Your task to perform on an android device: turn off notifications in google photos Image 0: 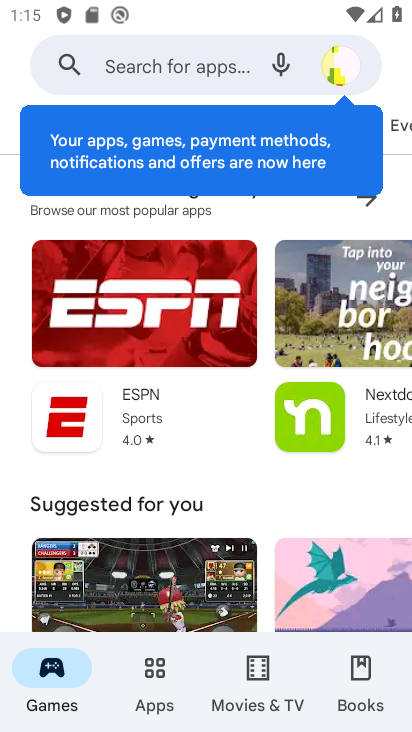
Step 0: press home button
Your task to perform on an android device: turn off notifications in google photos Image 1: 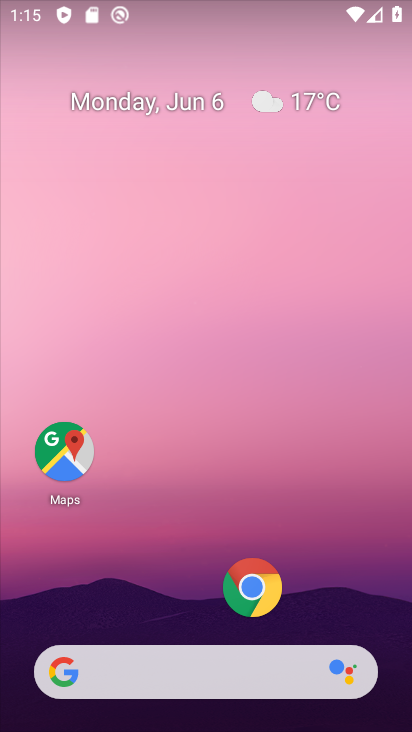
Step 1: drag from (204, 640) to (306, 33)
Your task to perform on an android device: turn off notifications in google photos Image 2: 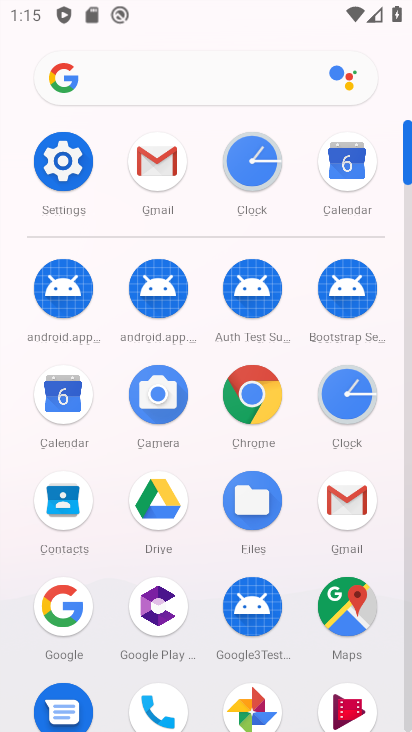
Step 2: drag from (296, 551) to (313, 171)
Your task to perform on an android device: turn off notifications in google photos Image 3: 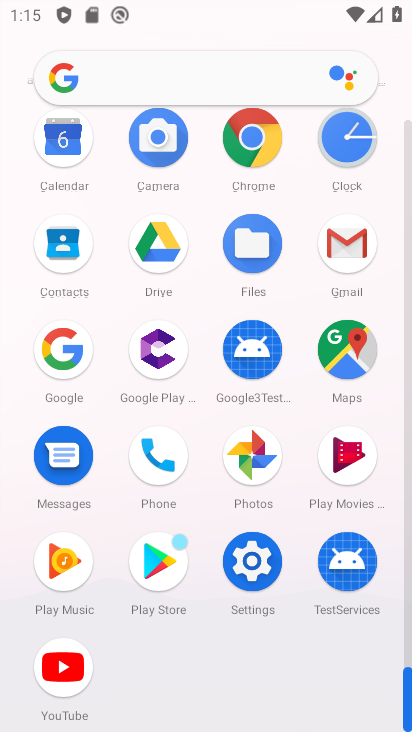
Step 3: click (252, 470)
Your task to perform on an android device: turn off notifications in google photos Image 4: 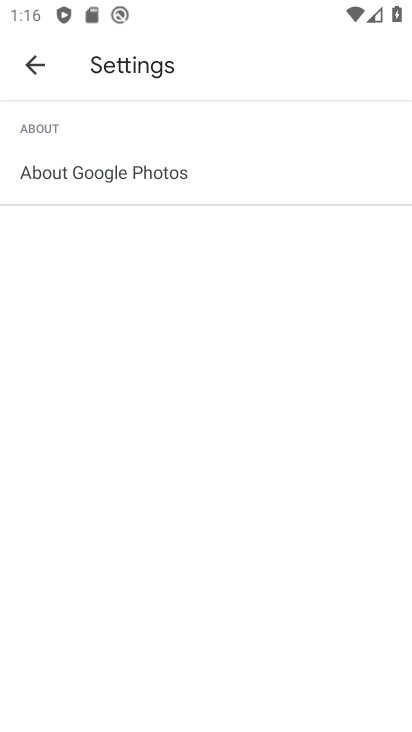
Step 4: click (32, 53)
Your task to perform on an android device: turn off notifications in google photos Image 5: 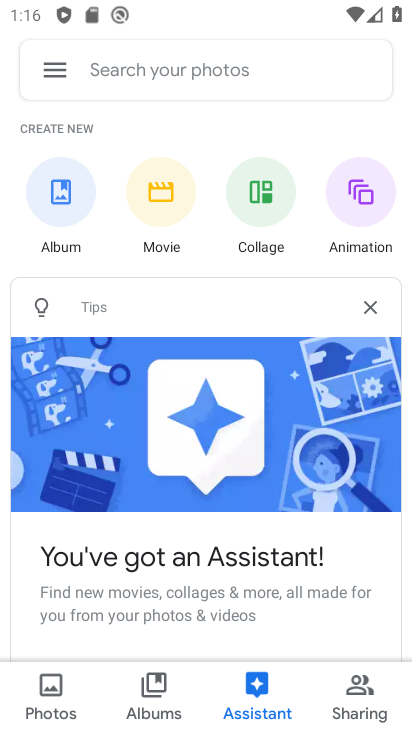
Step 5: click (39, 61)
Your task to perform on an android device: turn off notifications in google photos Image 6: 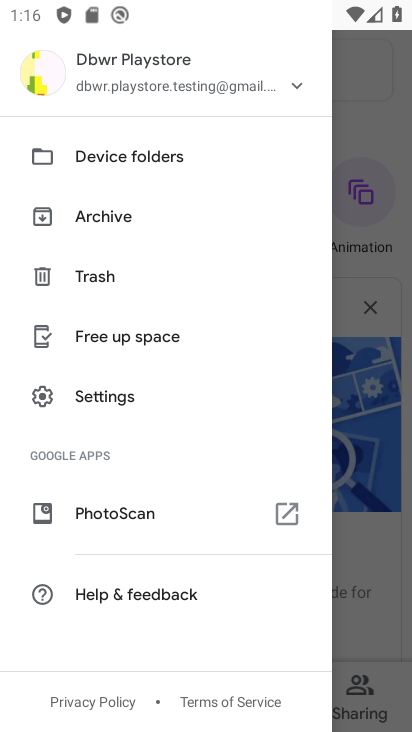
Step 6: click (110, 402)
Your task to perform on an android device: turn off notifications in google photos Image 7: 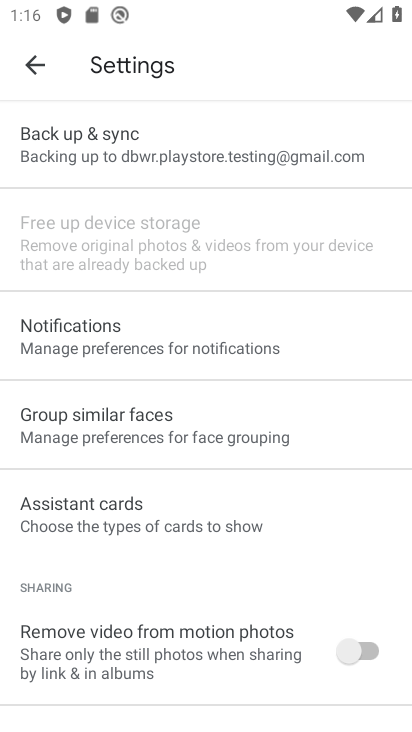
Step 7: click (142, 356)
Your task to perform on an android device: turn off notifications in google photos Image 8: 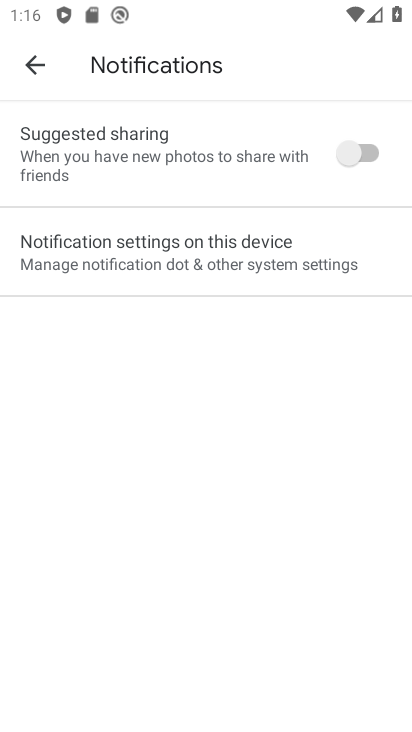
Step 8: click (161, 246)
Your task to perform on an android device: turn off notifications in google photos Image 9: 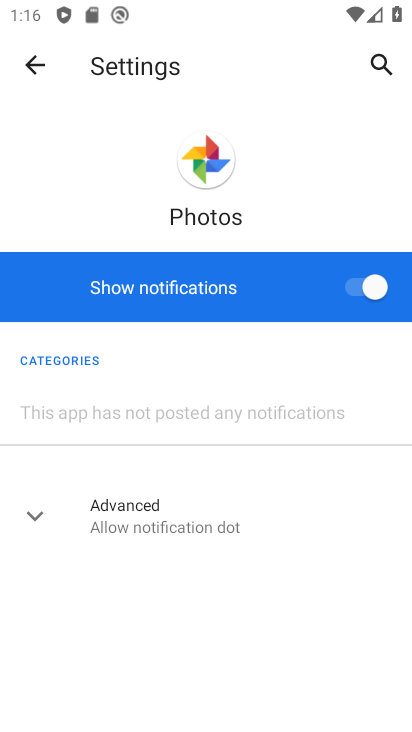
Step 9: click (343, 290)
Your task to perform on an android device: turn off notifications in google photos Image 10: 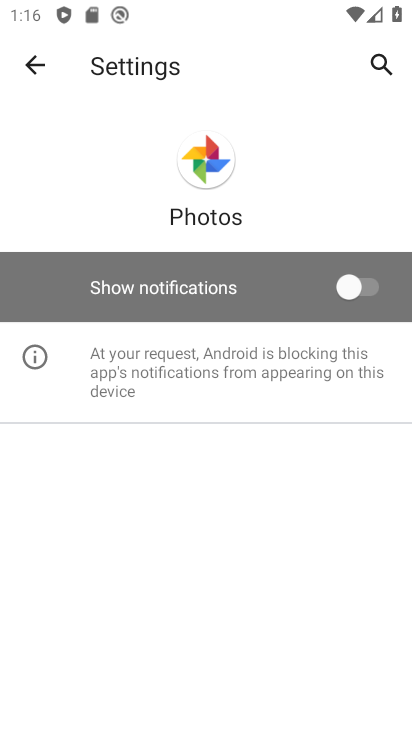
Step 10: task complete